Your task to perform on an android device: toggle translation in the chrome app Image 0: 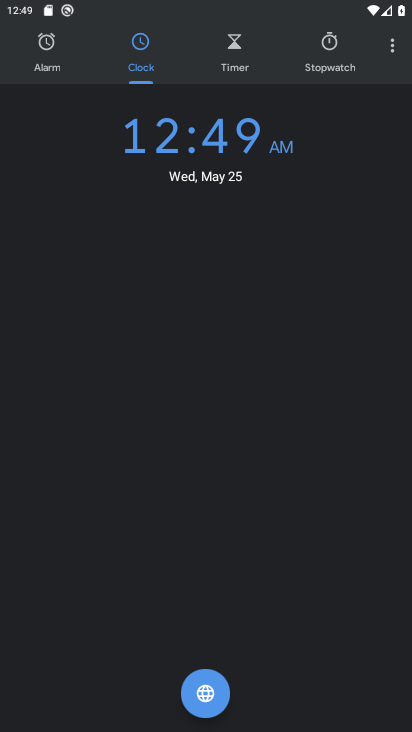
Step 0: press home button
Your task to perform on an android device: toggle translation in the chrome app Image 1: 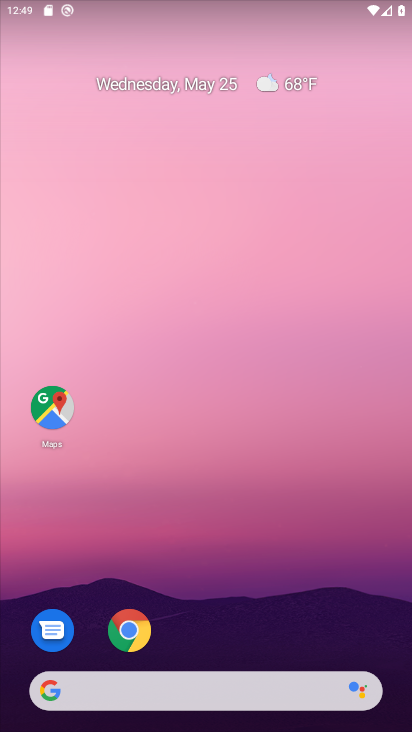
Step 1: click (139, 633)
Your task to perform on an android device: toggle translation in the chrome app Image 2: 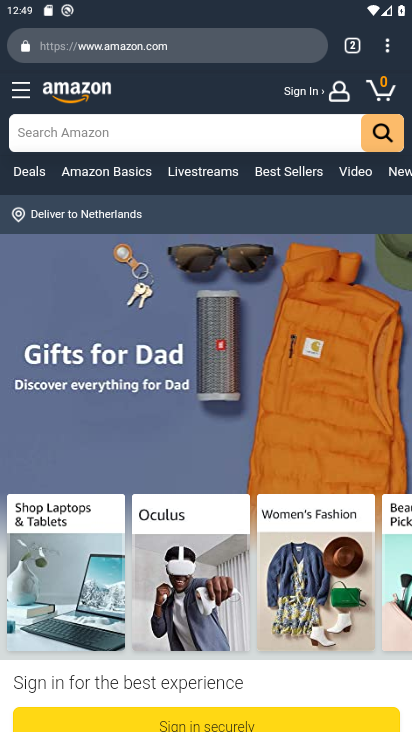
Step 2: drag from (388, 44) to (259, 545)
Your task to perform on an android device: toggle translation in the chrome app Image 3: 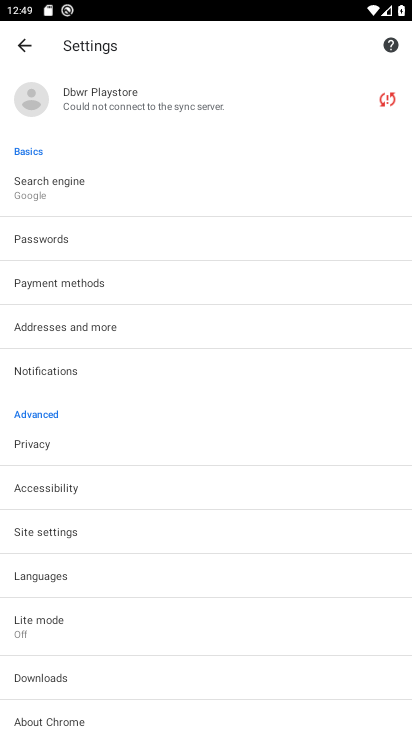
Step 3: click (85, 577)
Your task to perform on an android device: toggle translation in the chrome app Image 4: 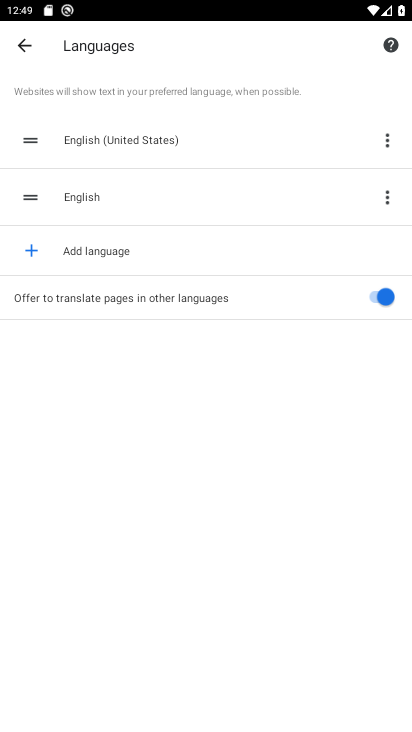
Step 4: click (369, 296)
Your task to perform on an android device: toggle translation in the chrome app Image 5: 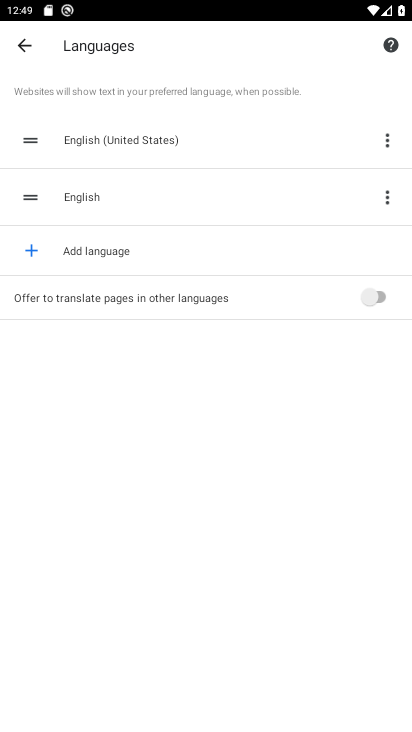
Step 5: task complete